Your task to perform on an android device: check android version Image 0: 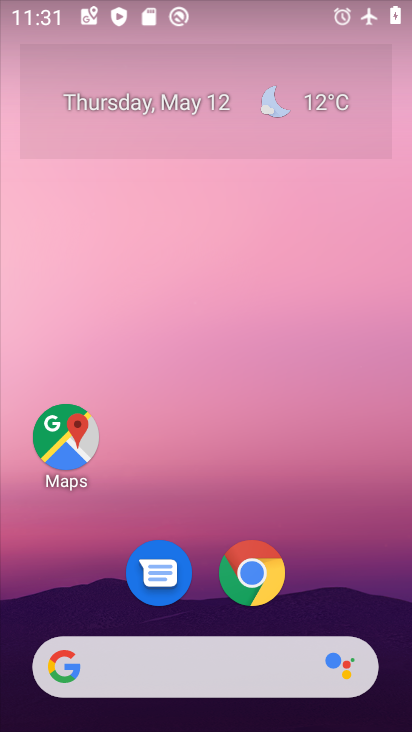
Step 0: drag from (281, 718) to (186, 37)
Your task to perform on an android device: check android version Image 1: 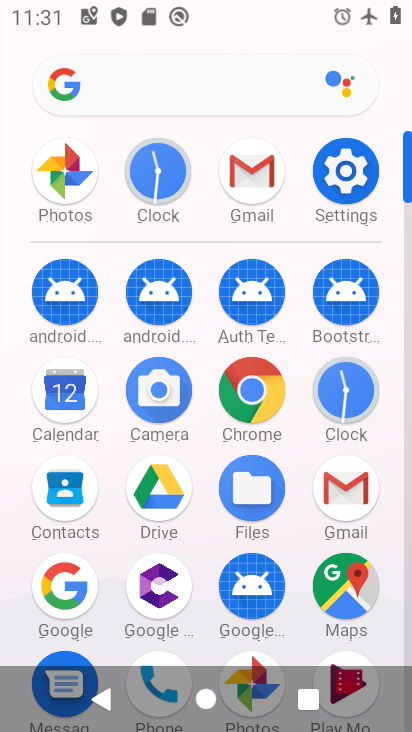
Step 1: click (334, 172)
Your task to perform on an android device: check android version Image 2: 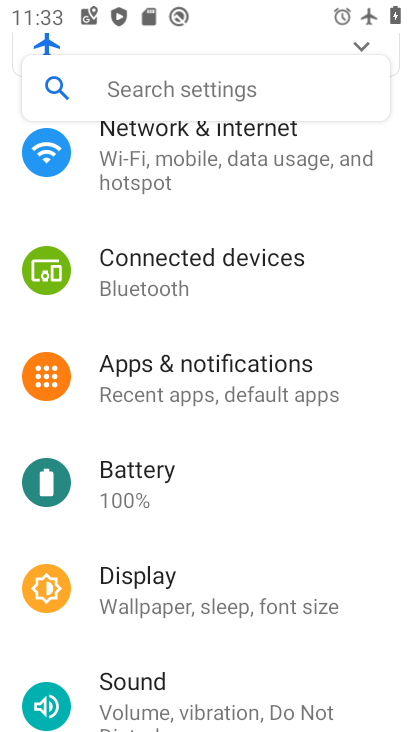
Step 2: drag from (225, 653) to (287, 37)
Your task to perform on an android device: check android version Image 3: 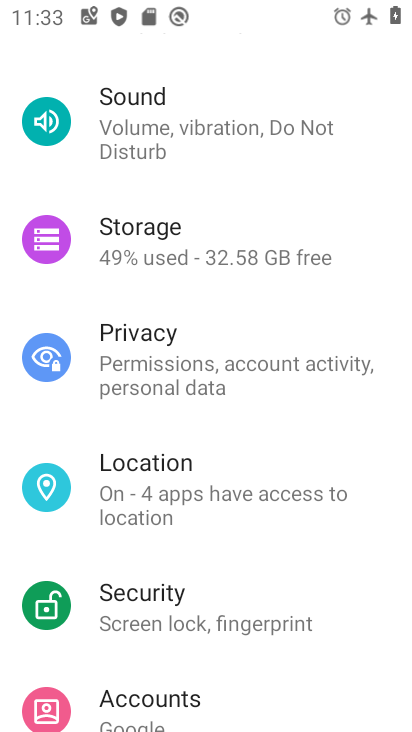
Step 3: drag from (133, 666) to (146, 93)
Your task to perform on an android device: check android version Image 4: 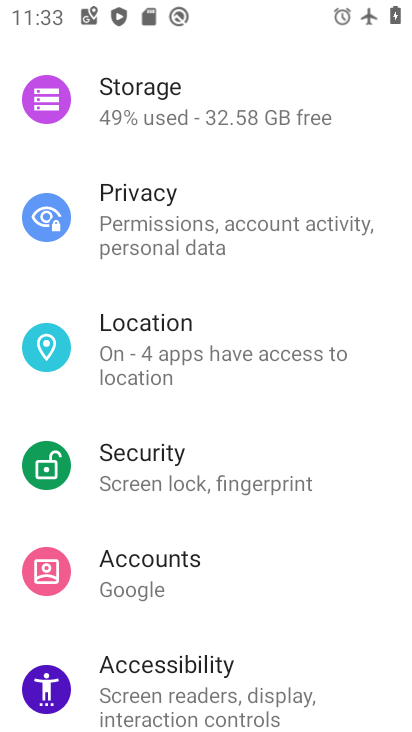
Step 4: drag from (325, 667) to (201, 69)
Your task to perform on an android device: check android version Image 5: 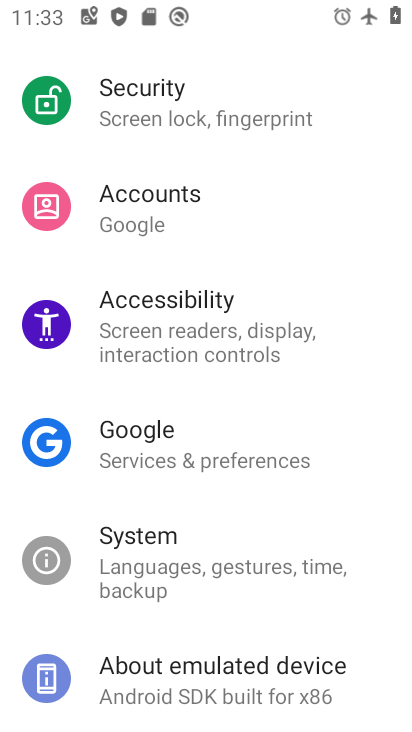
Step 5: drag from (152, 692) to (151, 122)
Your task to perform on an android device: check android version Image 6: 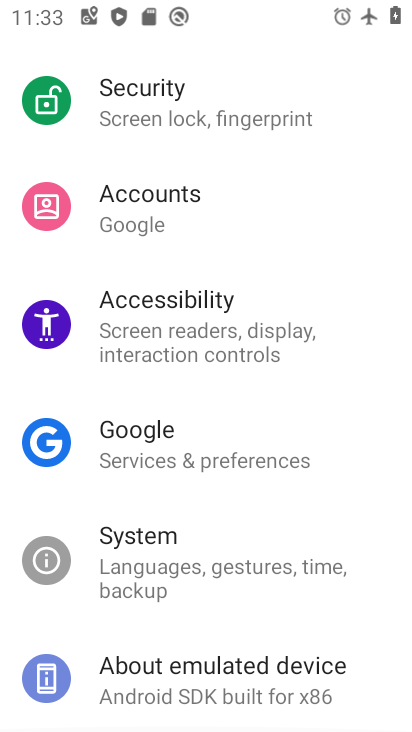
Step 6: click (330, 702)
Your task to perform on an android device: check android version Image 7: 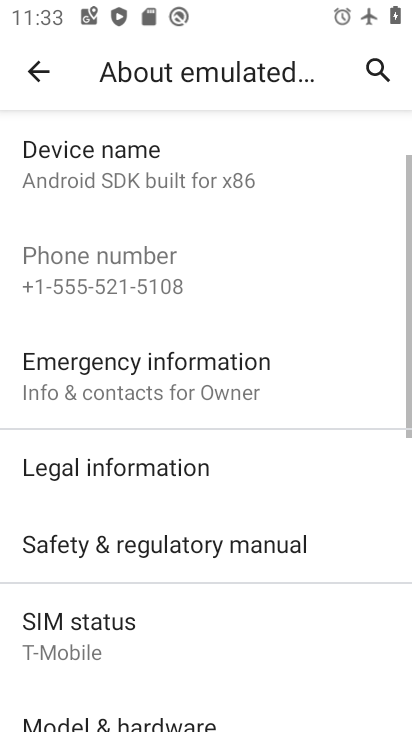
Step 7: task complete